Your task to perform on an android device: clear all cookies in the chrome app Image 0: 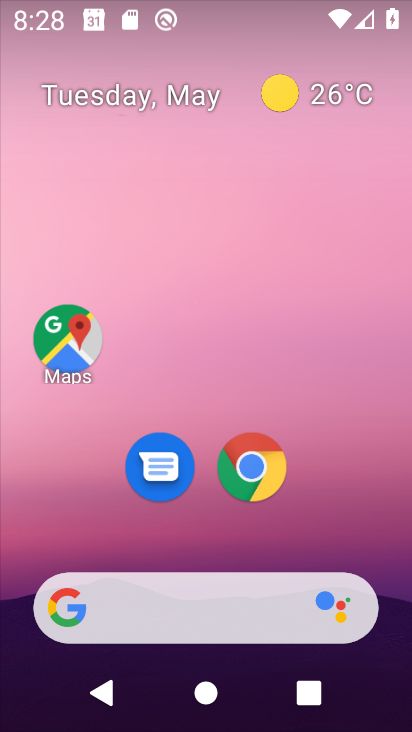
Step 0: click (252, 457)
Your task to perform on an android device: clear all cookies in the chrome app Image 1: 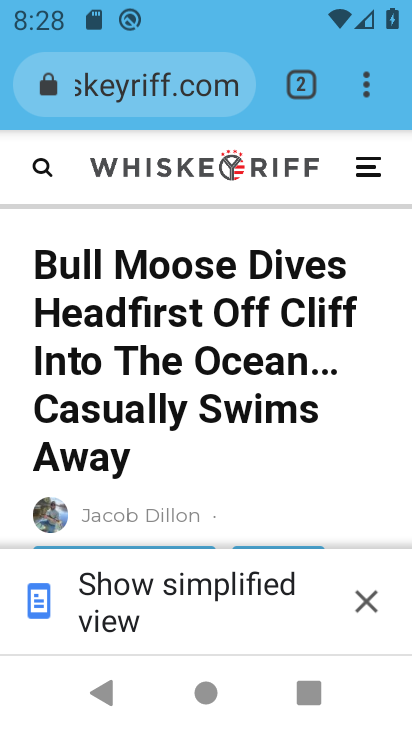
Step 1: click (365, 80)
Your task to perform on an android device: clear all cookies in the chrome app Image 2: 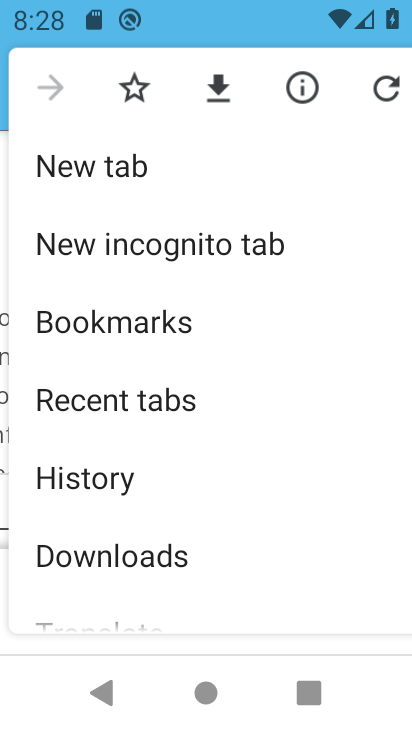
Step 2: click (67, 477)
Your task to perform on an android device: clear all cookies in the chrome app Image 3: 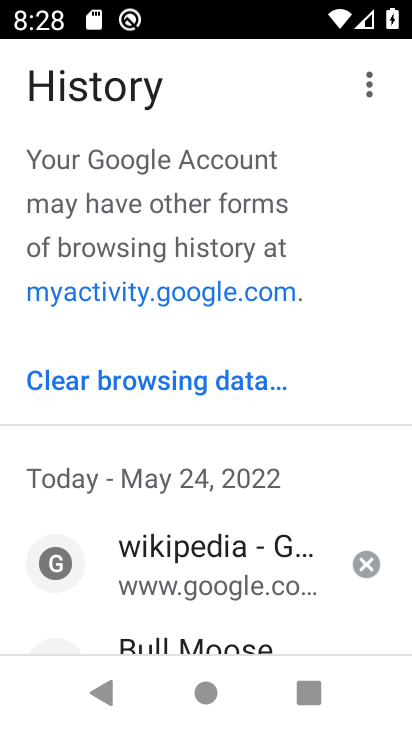
Step 3: click (168, 379)
Your task to perform on an android device: clear all cookies in the chrome app Image 4: 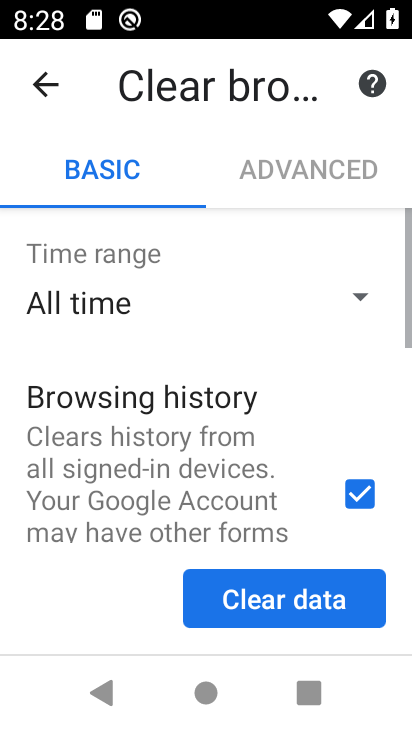
Step 4: drag from (286, 530) to (278, 291)
Your task to perform on an android device: clear all cookies in the chrome app Image 5: 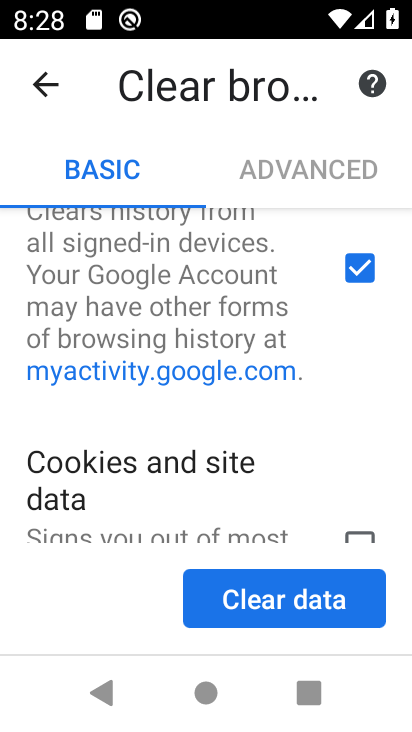
Step 5: drag from (246, 513) to (244, 307)
Your task to perform on an android device: clear all cookies in the chrome app Image 6: 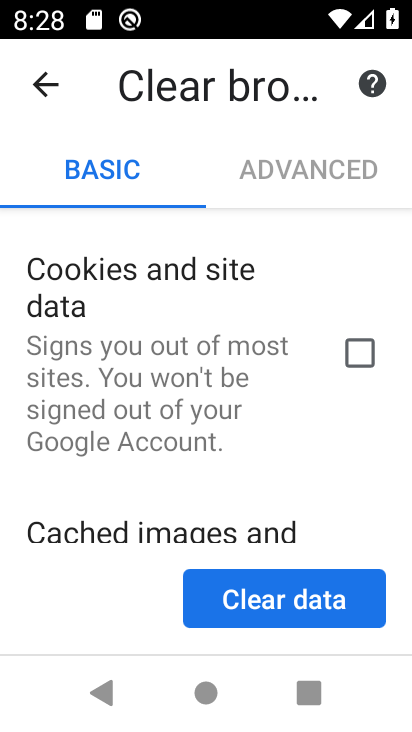
Step 6: click (346, 355)
Your task to perform on an android device: clear all cookies in the chrome app Image 7: 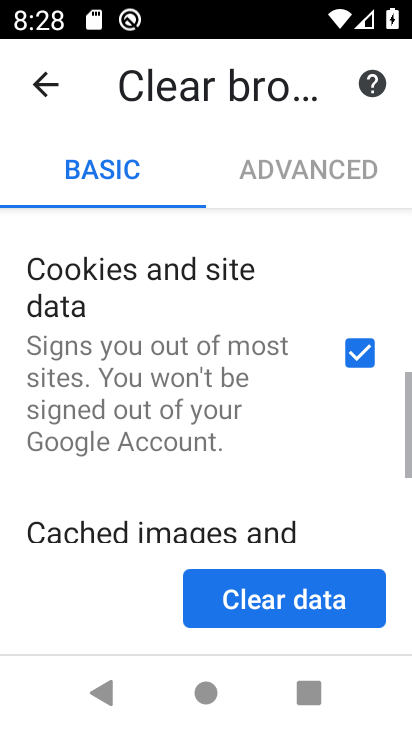
Step 7: drag from (218, 491) to (212, 274)
Your task to perform on an android device: clear all cookies in the chrome app Image 8: 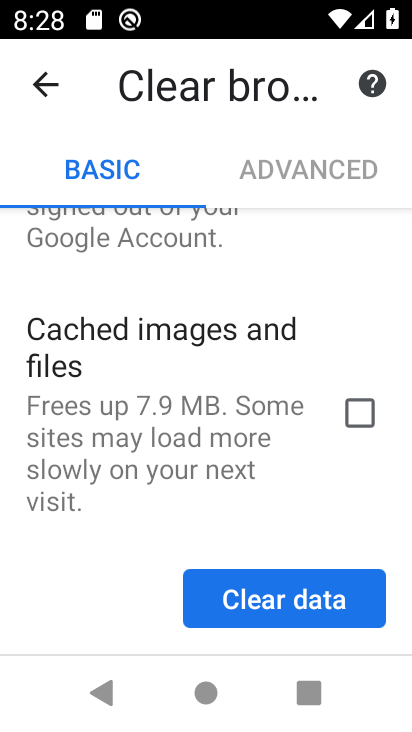
Step 8: click (352, 408)
Your task to perform on an android device: clear all cookies in the chrome app Image 9: 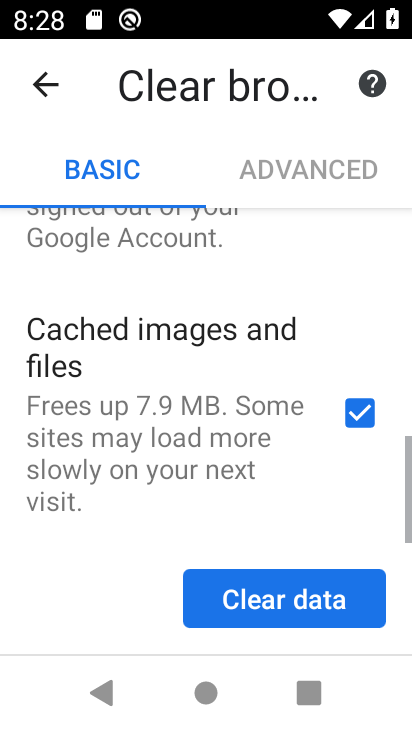
Step 9: click (306, 597)
Your task to perform on an android device: clear all cookies in the chrome app Image 10: 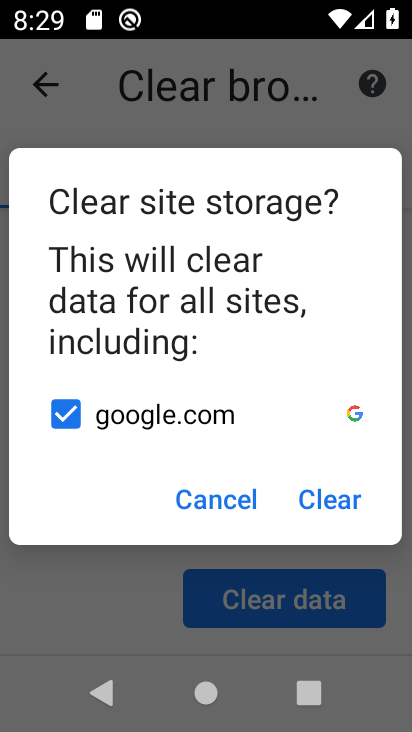
Step 10: click (335, 499)
Your task to perform on an android device: clear all cookies in the chrome app Image 11: 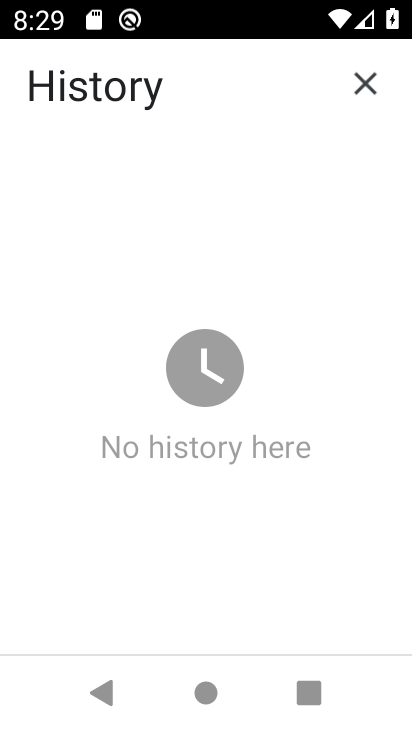
Step 11: task complete